Your task to perform on an android device: change your default location settings in chrome Image 0: 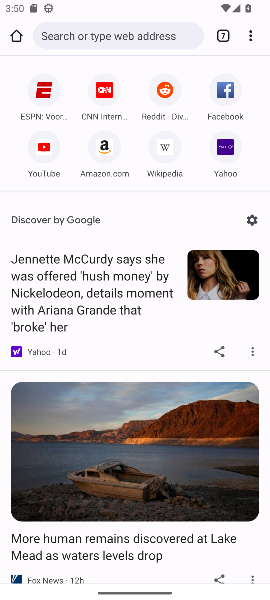
Step 0: press back button
Your task to perform on an android device: change your default location settings in chrome Image 1: 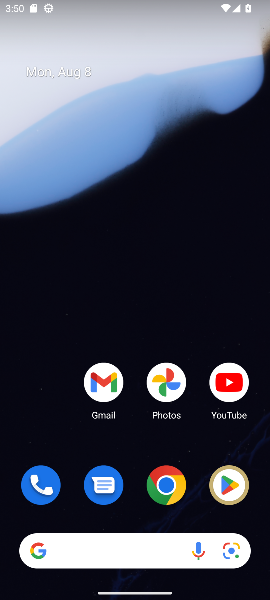
Step 1: drag from (158, 369) to (151, 37)
Your task to perform on an android device: change your default location settings in chrome Image 2: 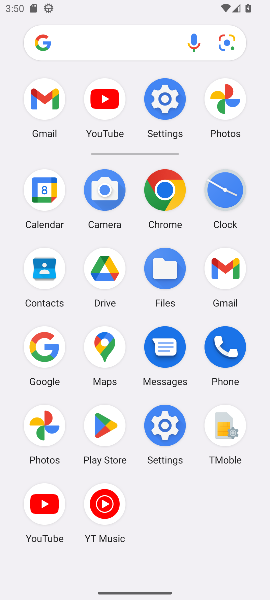
Step 2: click (173, 176)
Your task to perform on an android device: change your default location settings in chrome Image 3: 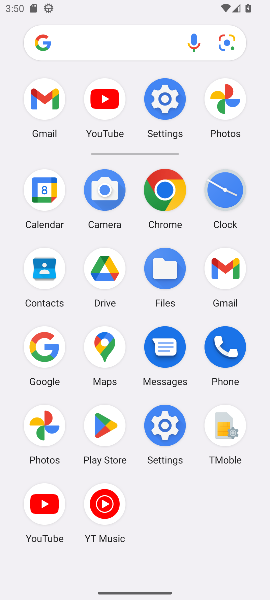
Step 3: click (172, 178)
Your task to perform on an android device: change your default location settings in chrome Image 4: 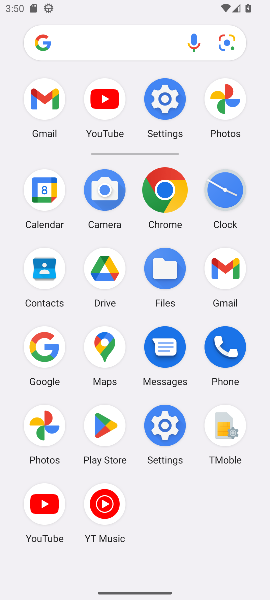
Step 4: click (172, 185)
Your task to perform on an android device: change your default location settings in chrome Image 5: 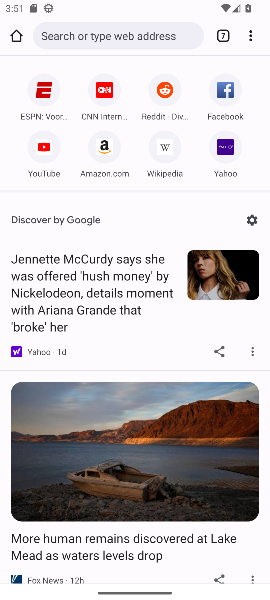
Step 5: drag from (253, 32) to (134, 333)
Your task to perform on an android device: change your default location settings in chrome Image 6: 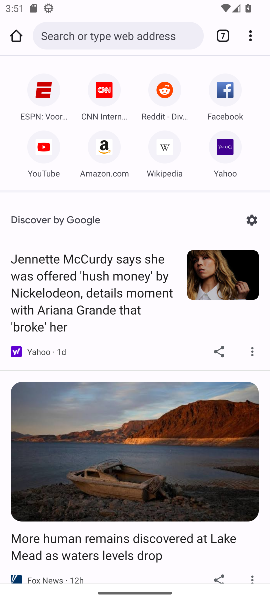
Step 6: click (136, 336)
Your task to perform on an android device: change your default location settings in chrome Image 7: 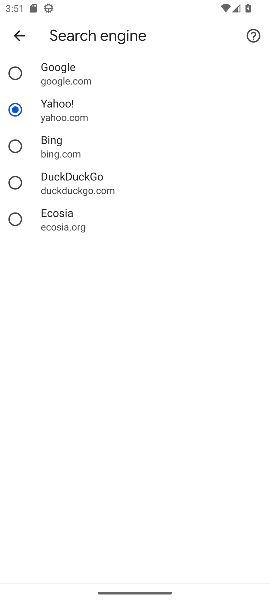
Step 7: click (16, 27)
Your task to perform on an android device: change your default location settings in chrome Image 8: 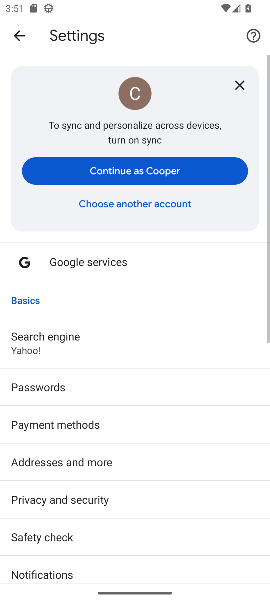
Step 8: drag from (59, 451) to (48, 194)
Your task to perform on an android device: change your default location settings in chrome Image 9: 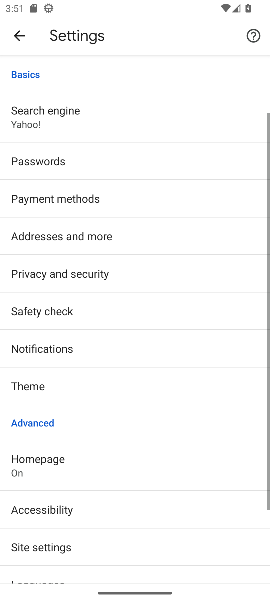
Step 9: drag from (87, 406) to (60, 152)
Your task to perform on an android device: change your default location settings in chrome Image 10: 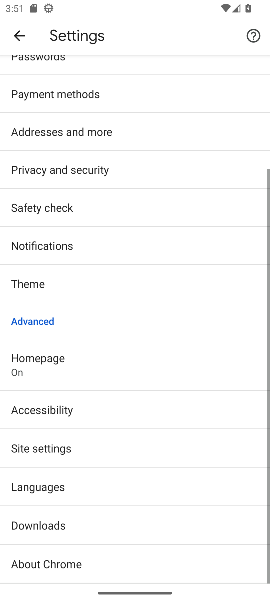
Step 10: drag from (69, 416) to (106, 190)
Your task to perform on an android device: change your default location settings in chrome Image 11: 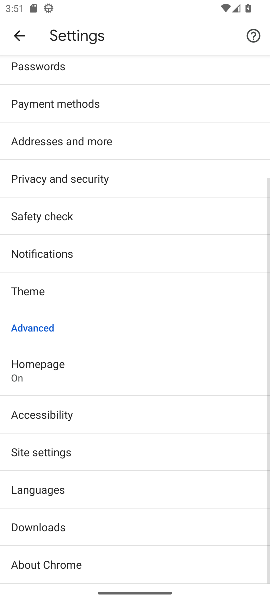
Step 11: drag from (133, 415) to (118, 167)
Your task to perform on an android device: change your default location settings in chrome Image 12: 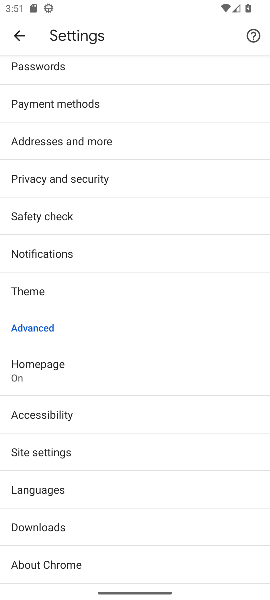
Step 12: click (36, 450)
Your task to perform on an android device: change your default location settings in chrome Image 13: 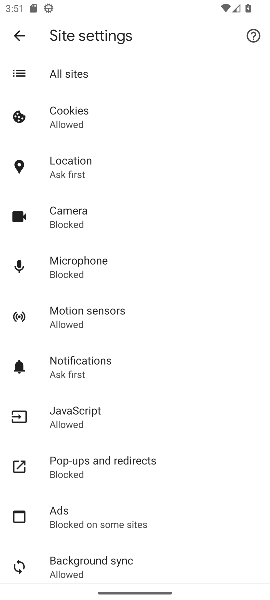
Step 13: click (68, 157)
Your task to perform on an android device: change your default location settings in chrome Image 14: 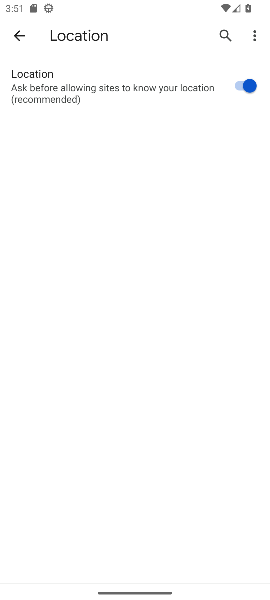
Step 14: click (246, 89)
Your task to perform on an android device: change your default location settings in chrome Image 15: 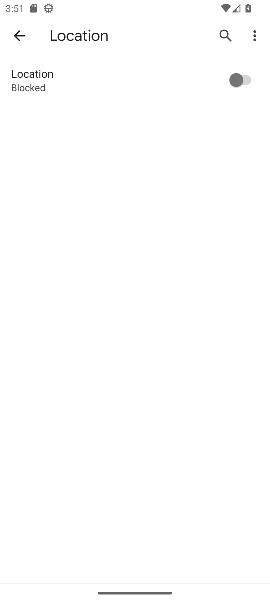
Step 15: task complete